Your task to perform on an android device: Empty the shopping cart on ebay. Image 0: 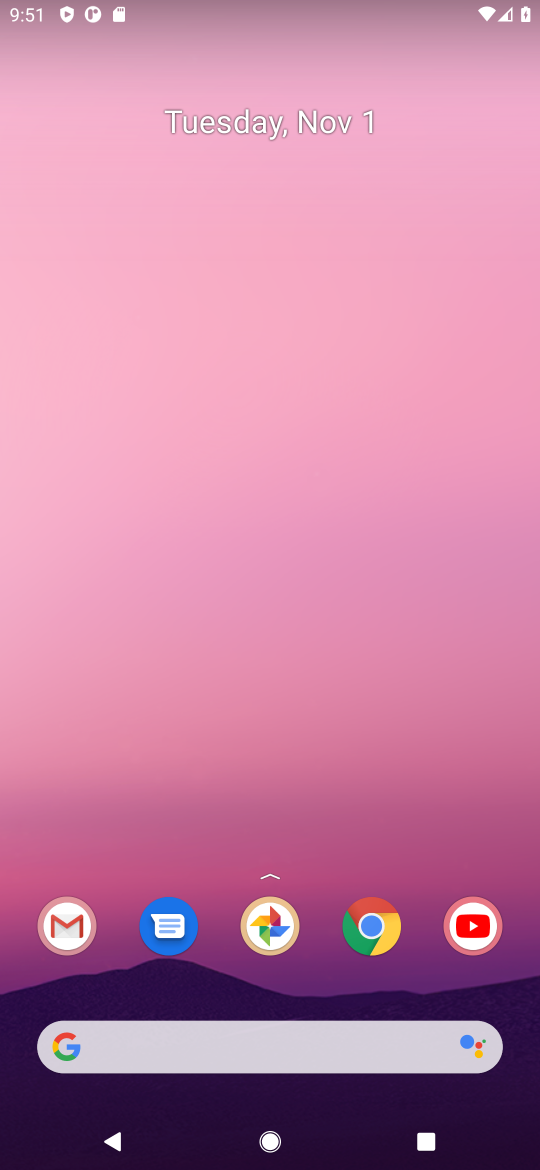
Step 0: click (367, 928)
Your task to perform on an android device: Empty the shopping cart on ebay. Image 1: 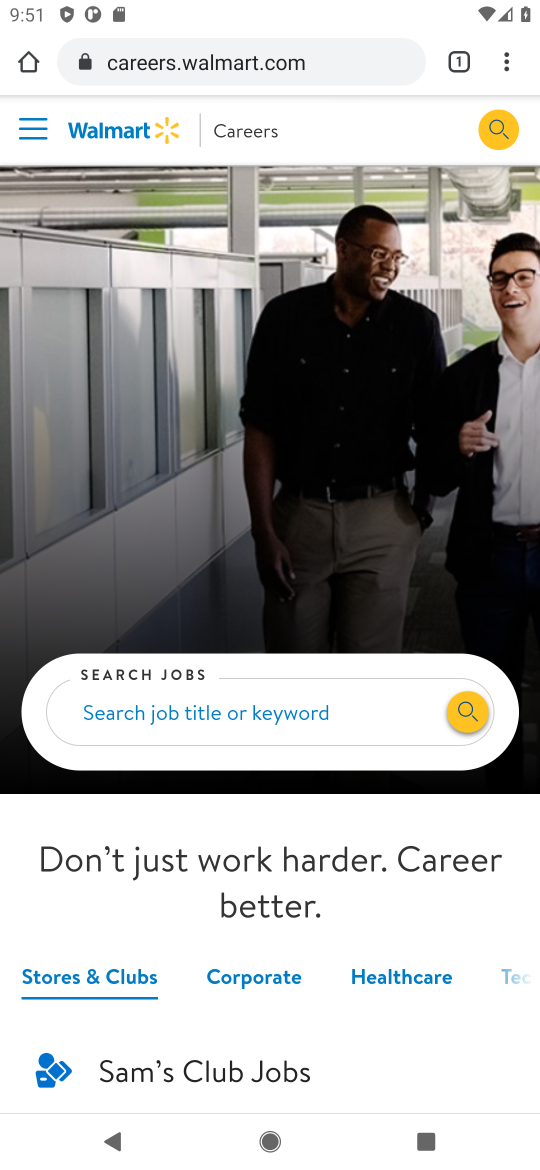
Step 1: click (215, 71)
Your task to perform on an android device: Empty the shopping cart on ebay. Image 2: 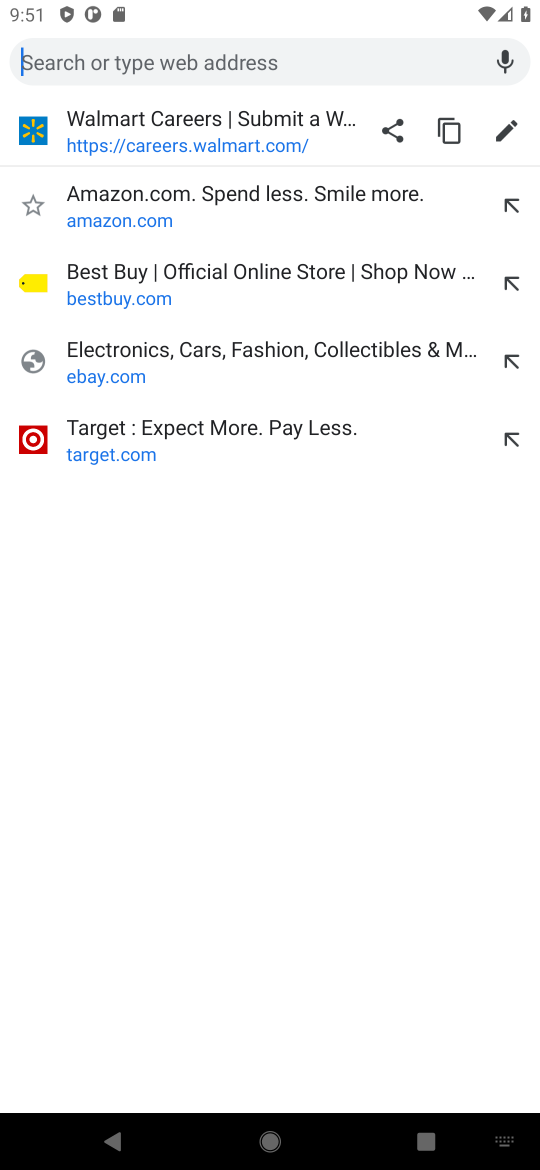
Step 2: type "ebay"
Your task to perform on an android device: Empty the shopping cart on ebay. Image 3: 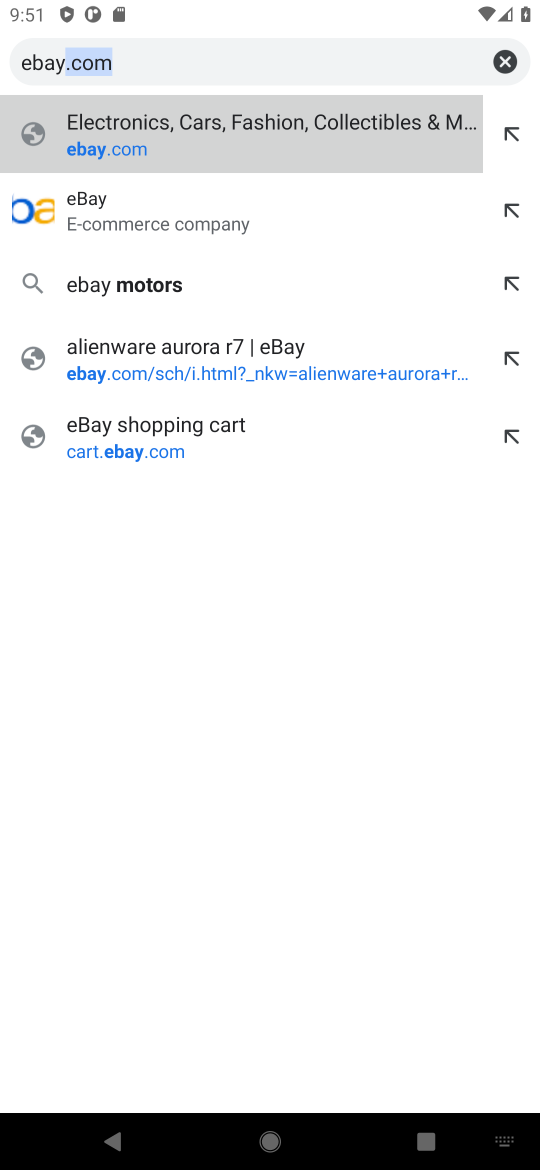
Step 3: click (124, 218)
Your task to perform on an android device: Empty the shopping cart on ebay. Image 4: 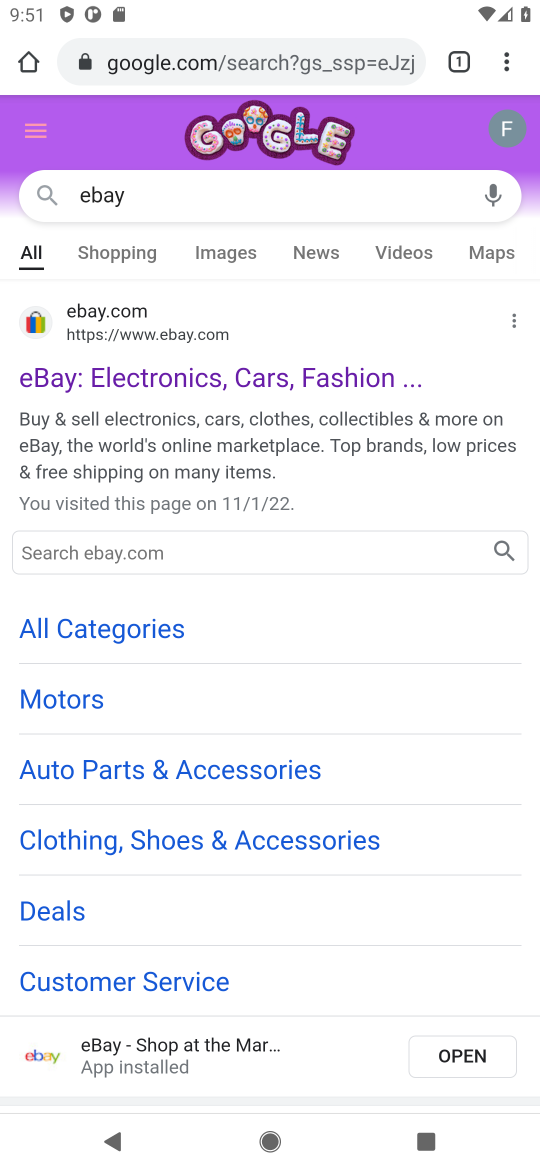
Step 4: drag from (174, 890) to (189, 168)
Your task to perform on an android device: Empty the shopping cart on ebay. Image 5: 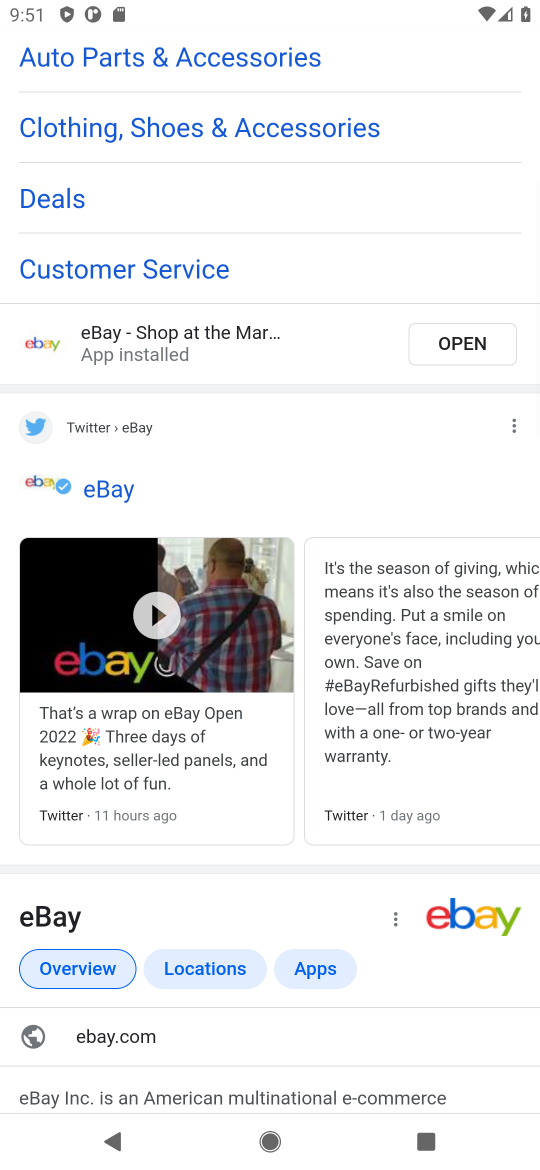
Step 5: drag from (104, 941) to (53, 539)
Your task to perform on an android device: Empty the shopping cart on ebay. Image 6: 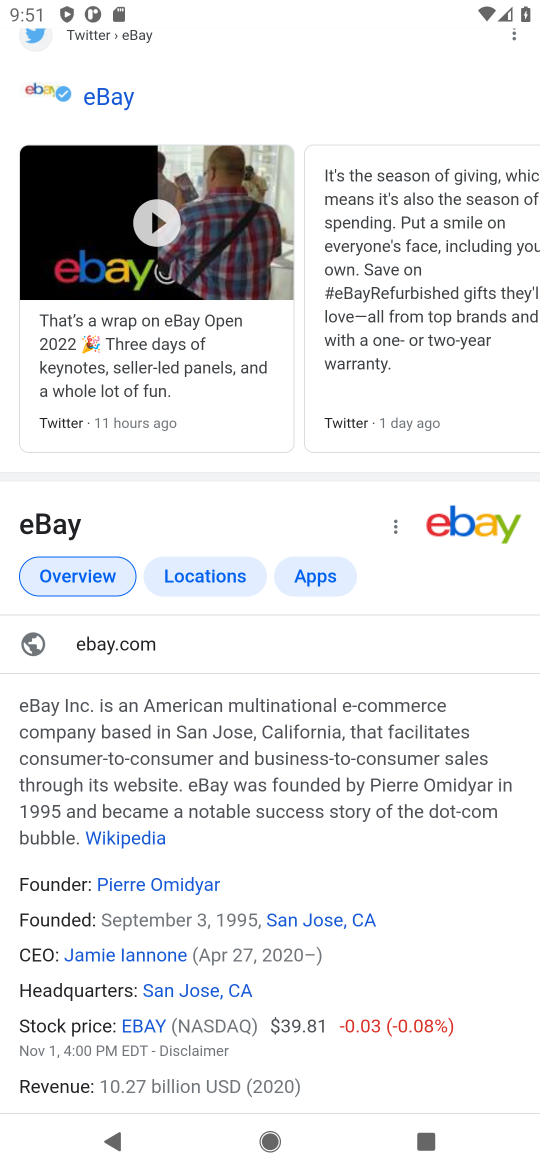
Step 6: drag from (132, 567) to (140, 1090)
Your task to perform on an android device: Empty the shopping cart on ebay. Image 7: 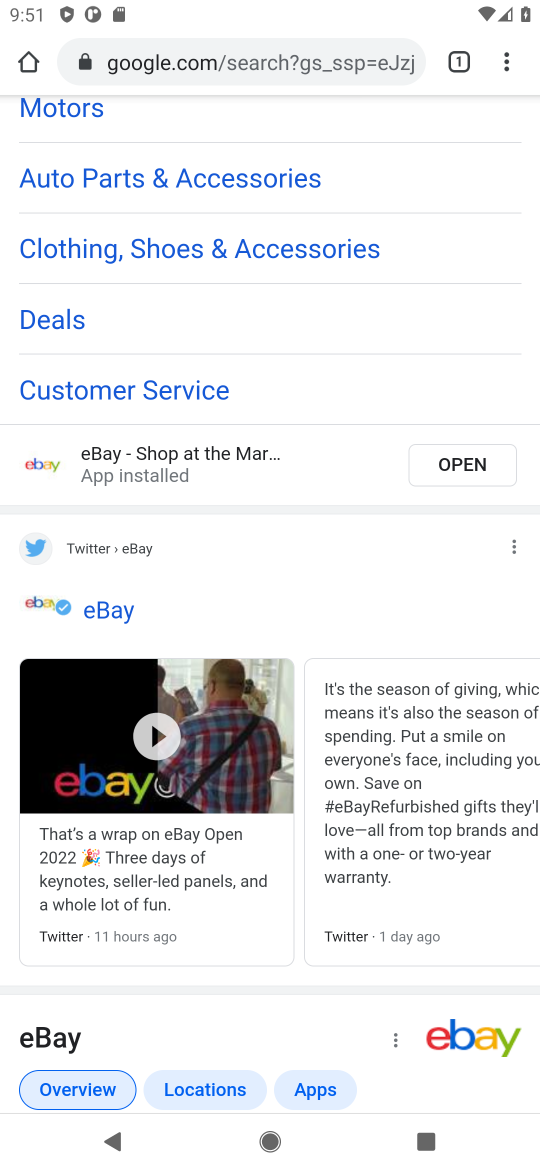
Step 7: drag from (191, 359) to (178, 813)
Your task to perform on an android device: Empty the shopping cart on ebay. Image 8: 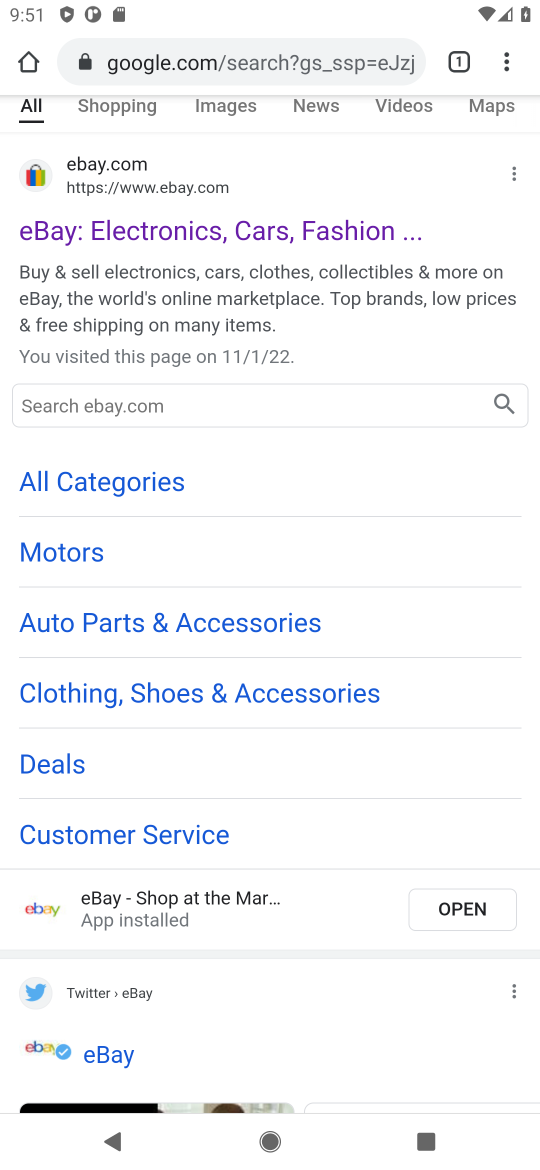
Step 8: click (26, 244)
Your task to perform on an android device: Empty the shopping cart on ebay. Image 9: 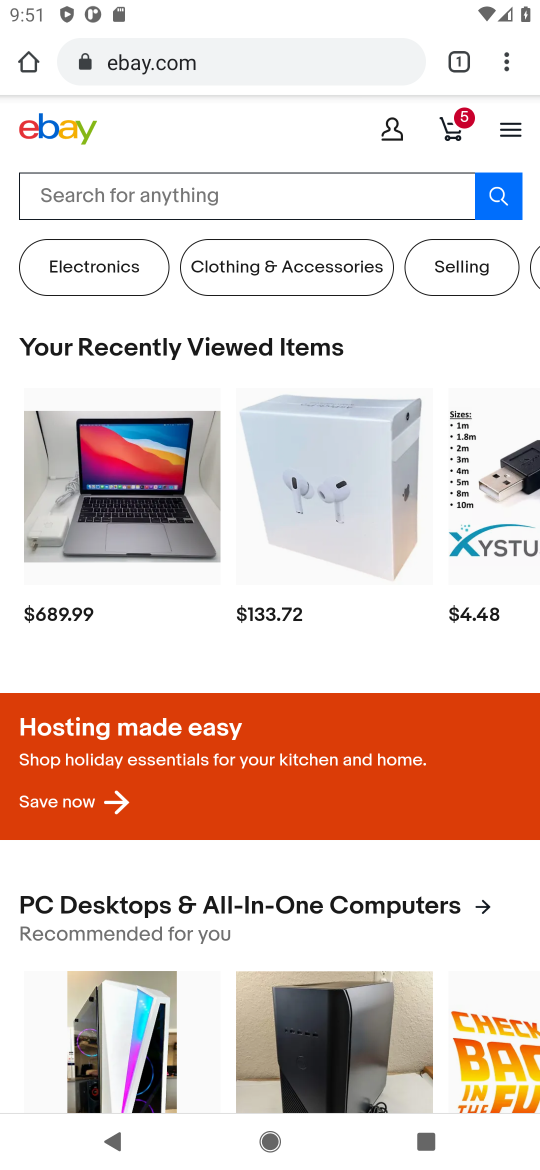
Step 9: click (161, 192)
Your task to perform on an android device: Empty the shopping cart on ebay. Image 10: 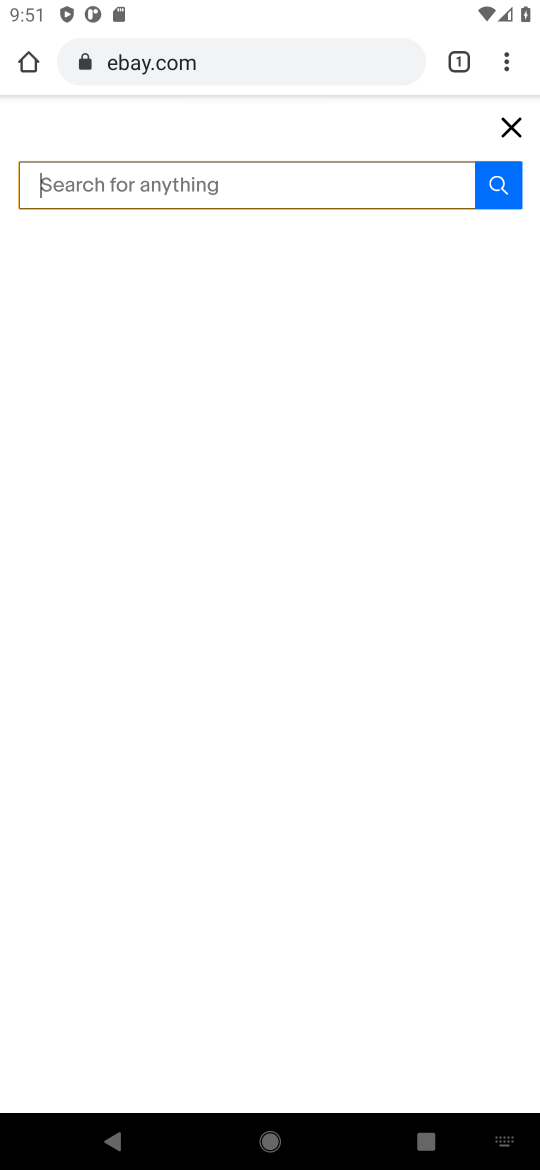
Step 10: press back button
Your task to perform on an android device: Empty the shopping cart on ebay. Image 11: 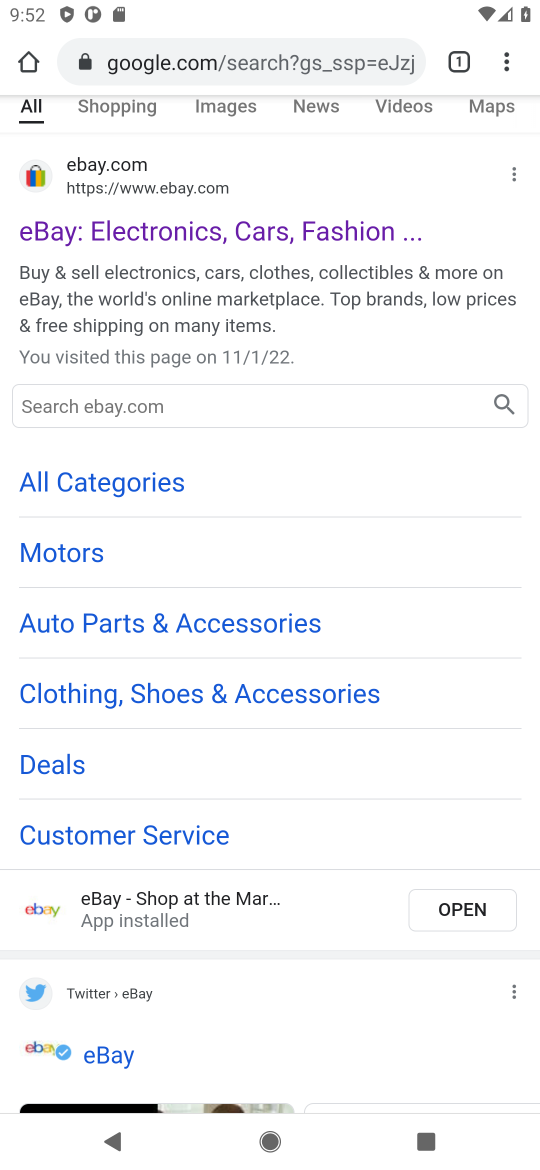
Step 11: click (160, 231)
Your task to perform on an android device: Empty the shopping cart on ebay. Image 12: 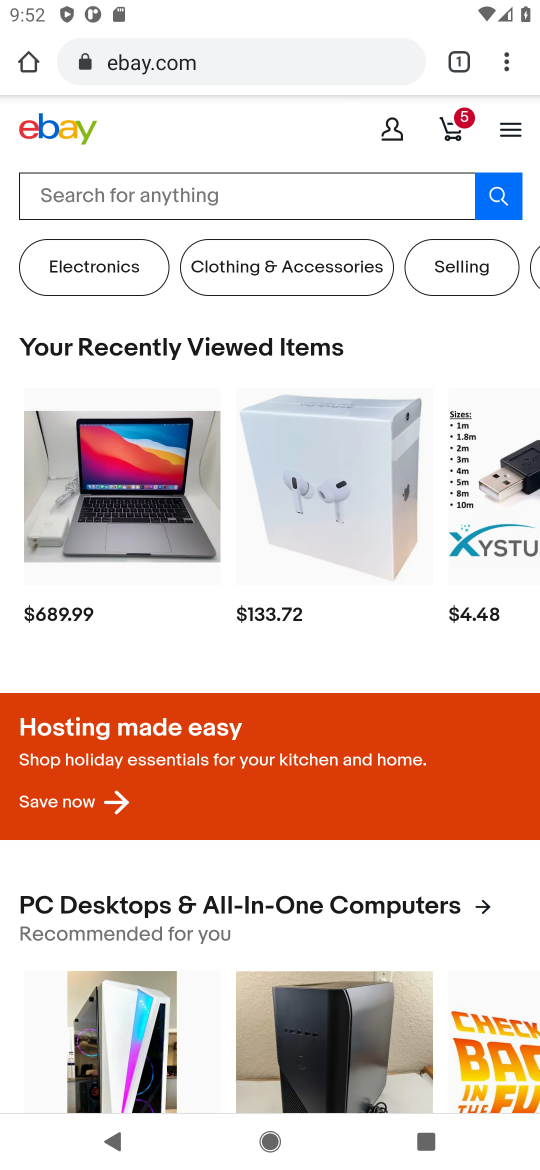
Step 12: click (446, 127)
Your task to perform on an android device: Empty the shopping cart on ebay. Image 13: 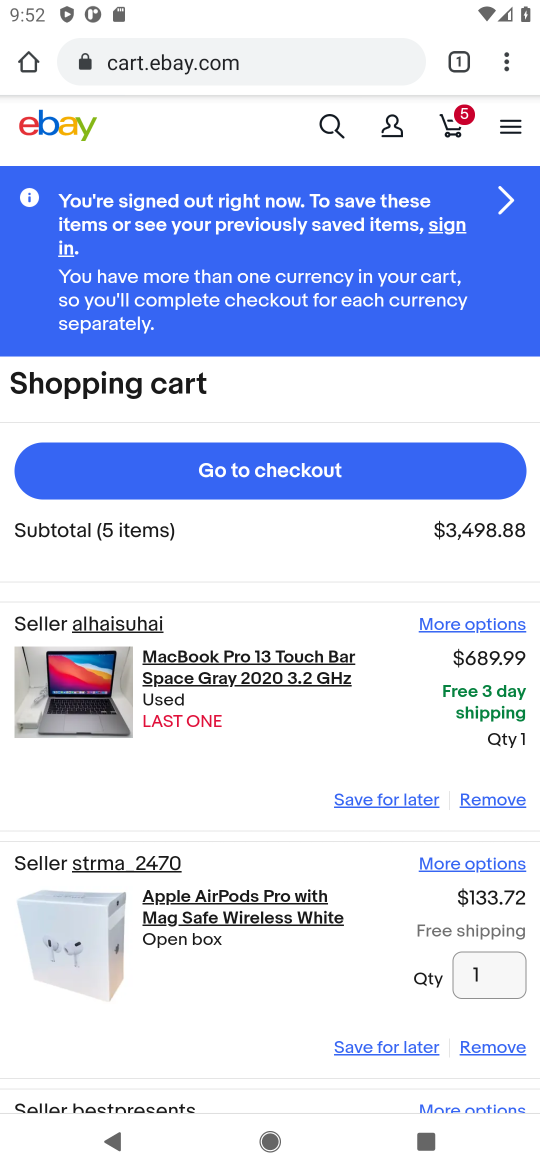
Step 13: click (502, 801)
Your task to perform on an android device: Empty the shopping cart on ebay. Image 14: 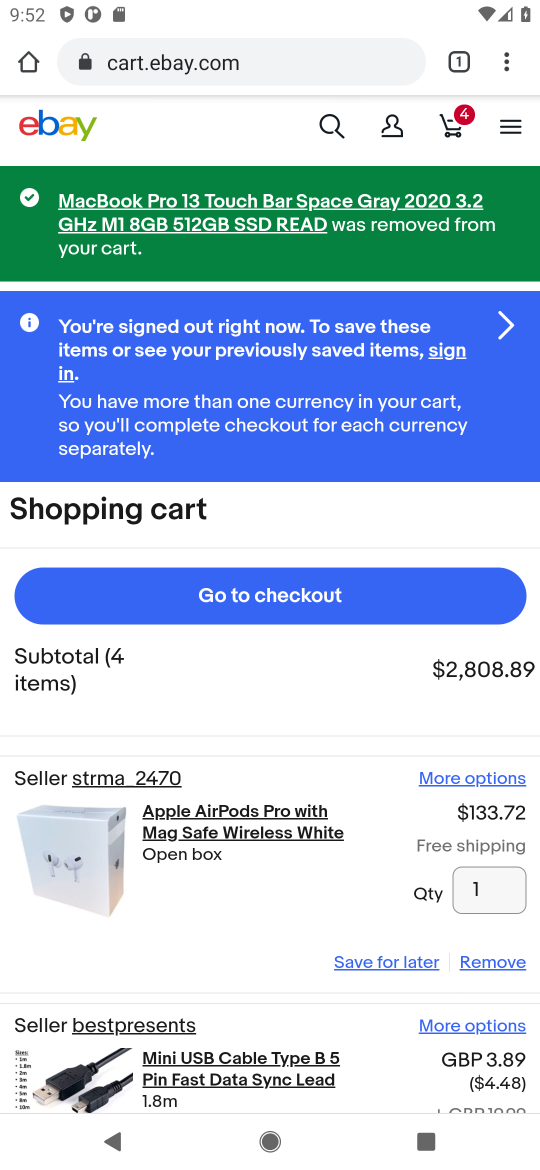
Step 14: click (501, 965)
Your task to perform on an android device: Empty the shopping cart on ebay. Image 15: 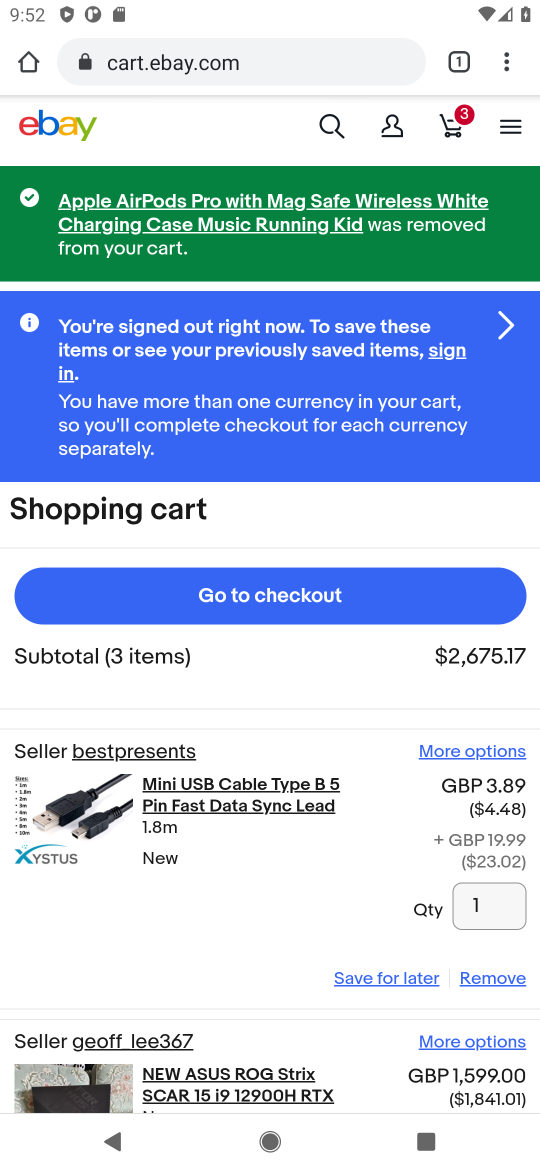
Step 15: click (489, 981)
Your task to perform on an android device: Empty the shopping cart on ebay. Image 16: 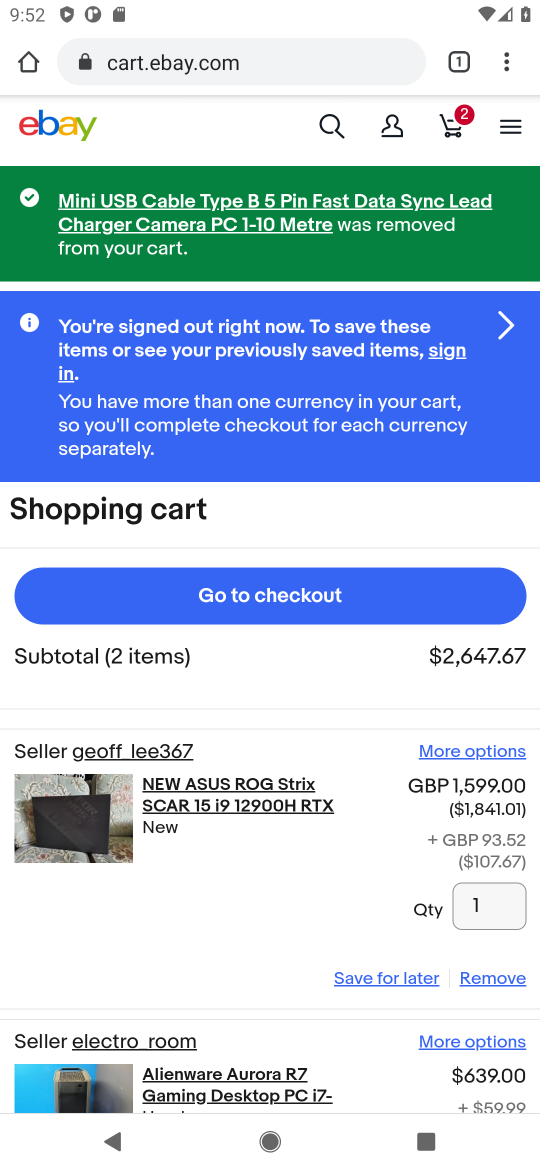
Step 16: click (494, 975)
Your task to perform on an android device: Empty the shopping cart on ebay. Image 17: 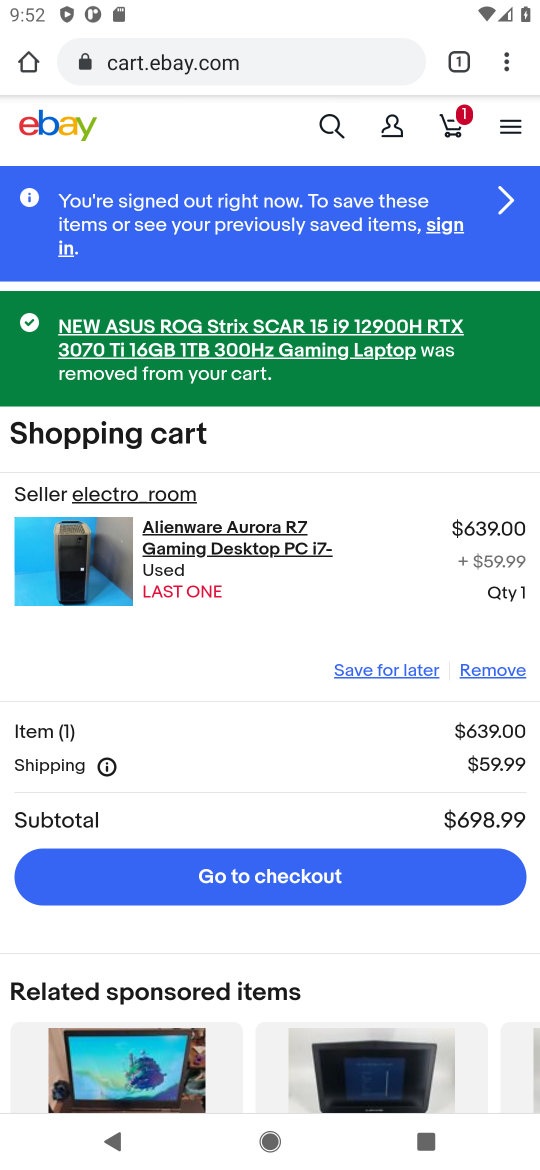
Step 17: click (515, 210)
Your task to perform on an android device: Empty the shopping cart on ebay. Image 18: 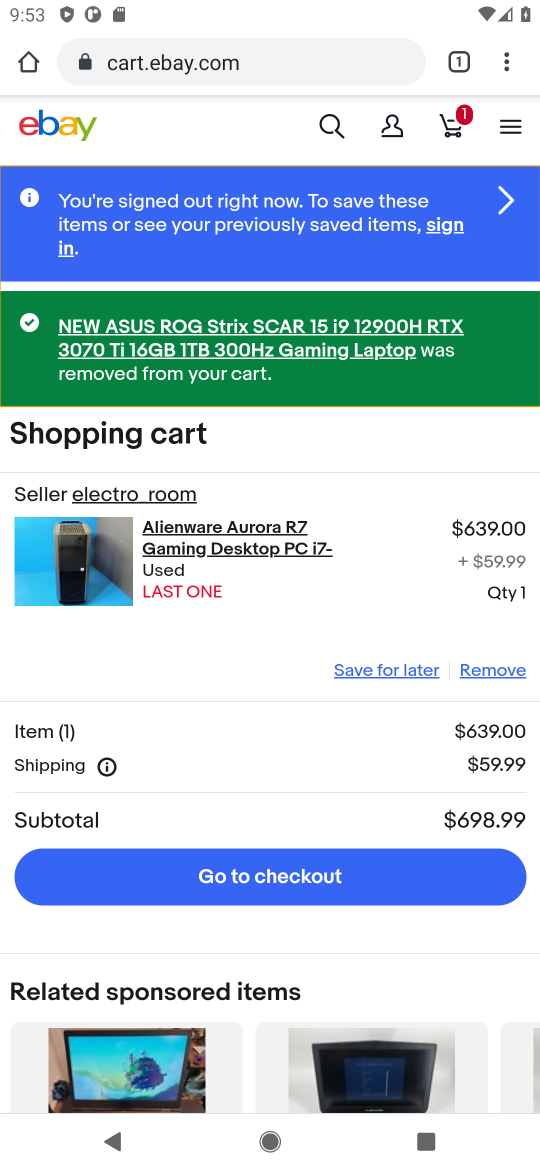
Step 18: task complete